Your task to perform on an android device: uninstall "Expedia: Hotels, Flights & Car" Image 0: 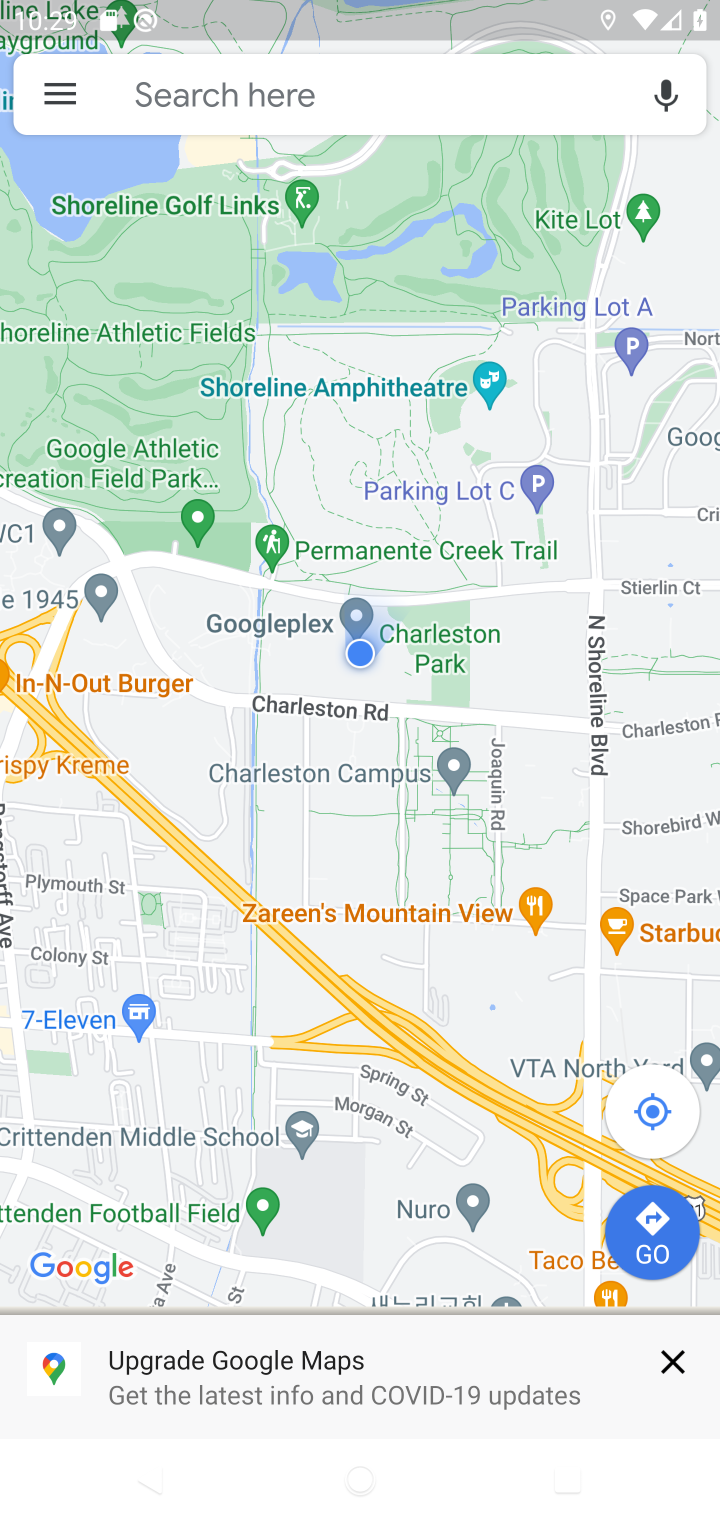
Step 0: press home button
Your task to perform on an android device: uninstall "Expedia: Hotels, Flights & Car" Image 1: 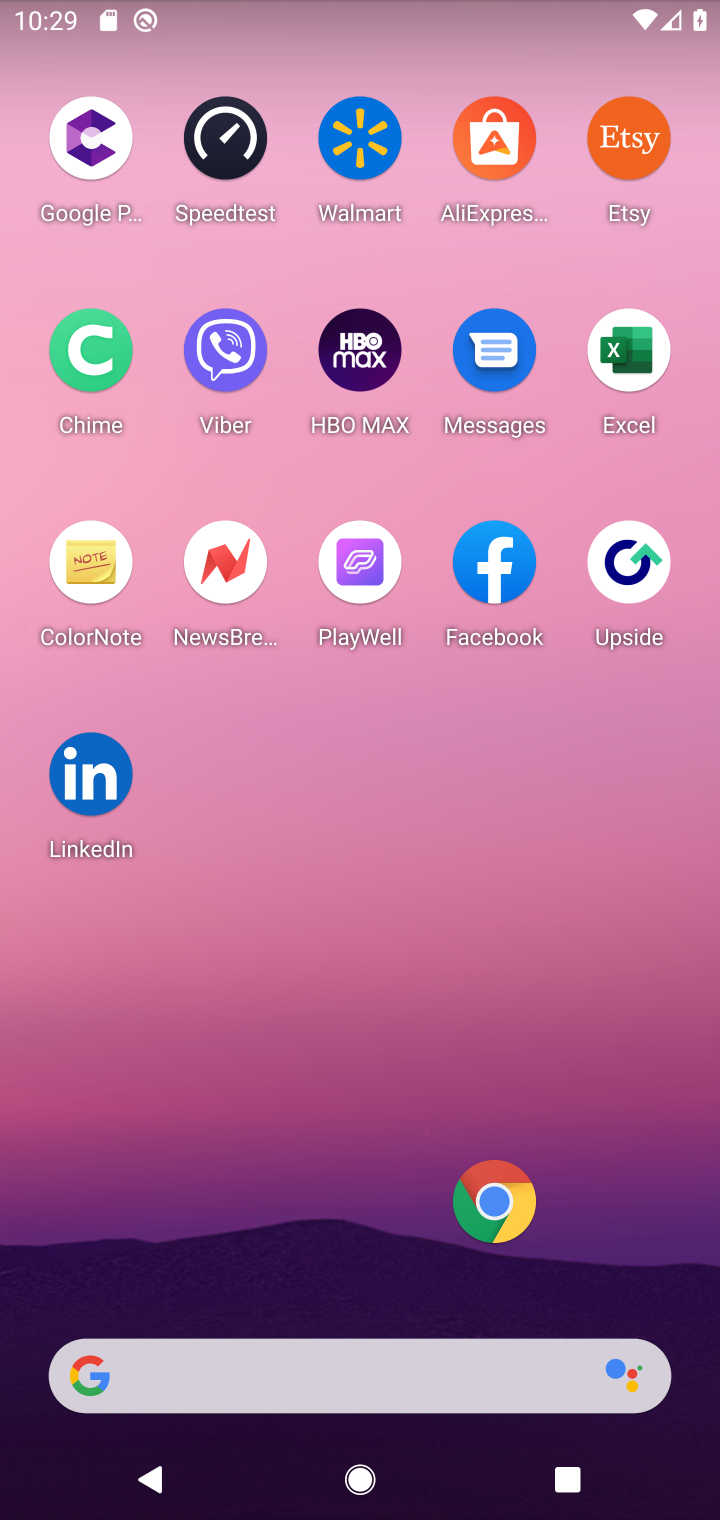
Step 1: drag from (269, 1312) to (390, 558)
Your task to perform on an android device: uninstall "Expedia: Hotels, Flights & Car" Image 2: 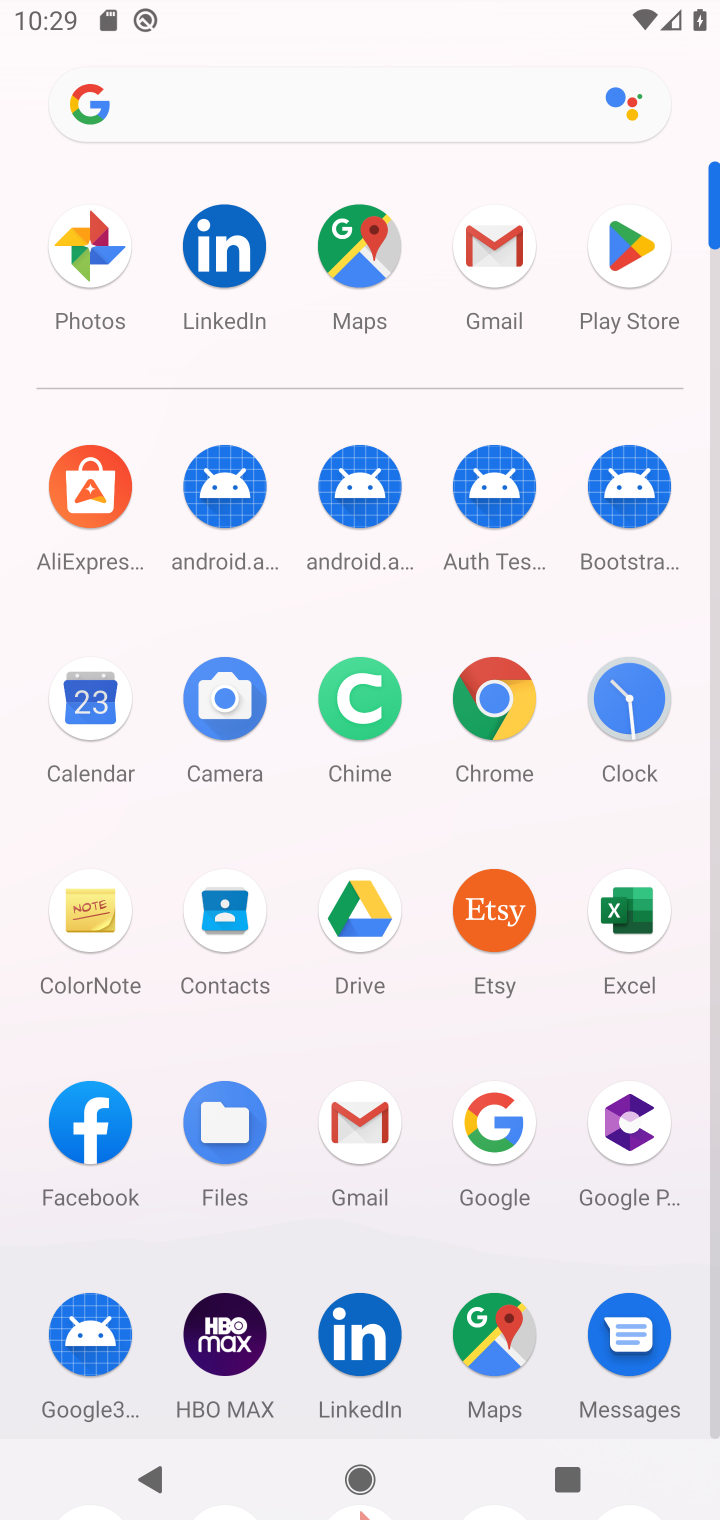
Step 2: click (605, 247)
Your task to perform on an android device: uninstall "Expedia: Hotels, Flights & Car" Image 3: 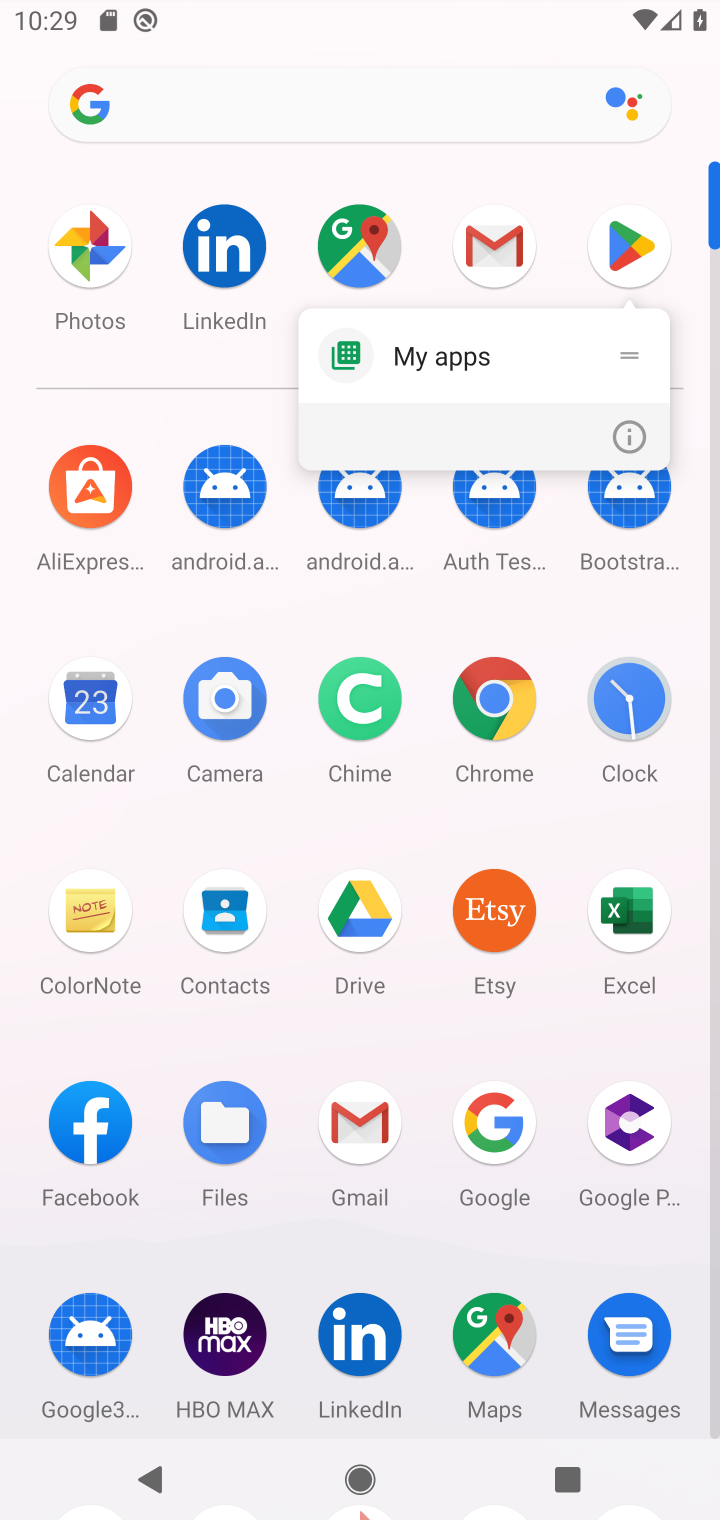
Step 3: click (637, 243)
Your task to perform on an android device: uninstall "Expedia: Hotels, Flights & Car" Image 4: 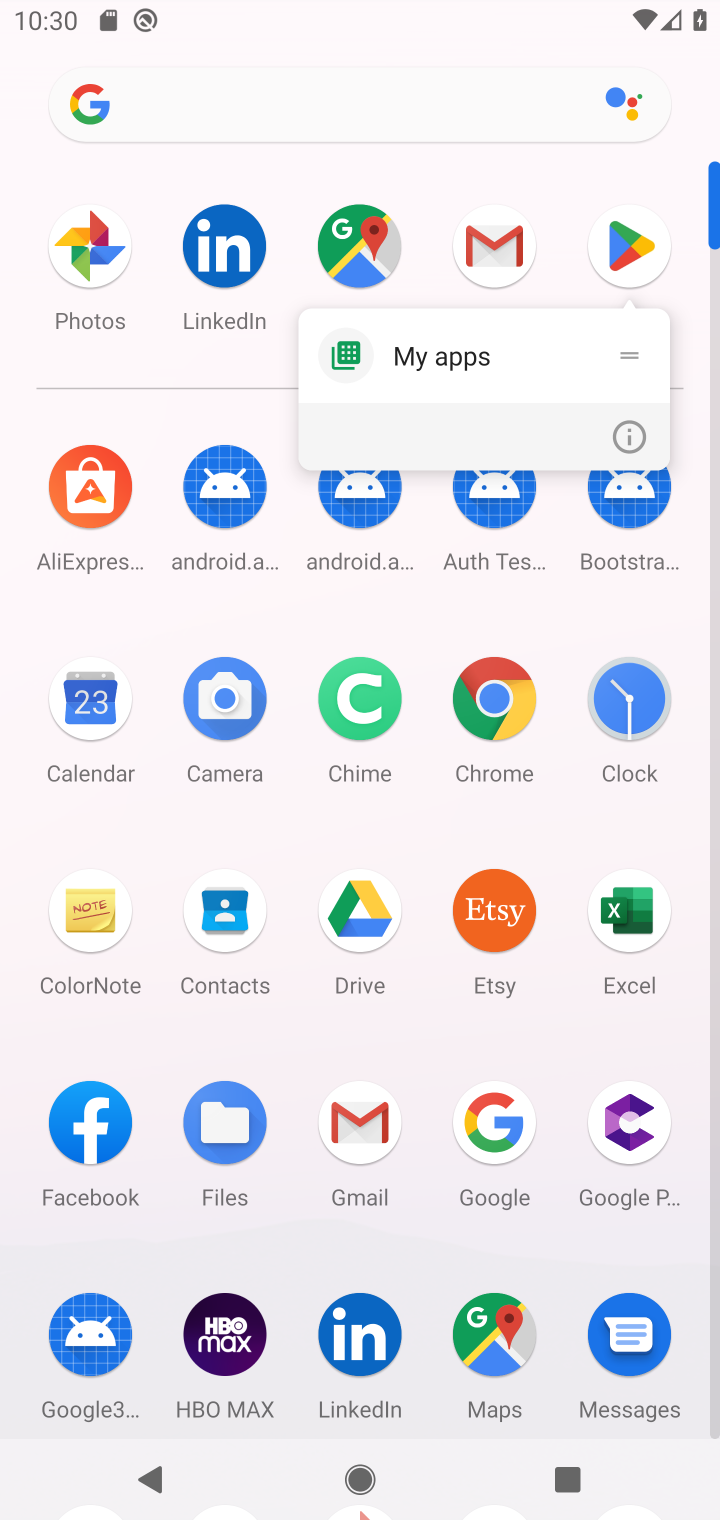
Step 4: click (617, 239)
Your task to perform on an android device: uninstall "Expedia: Hotels, Flights & Car" Image 5: 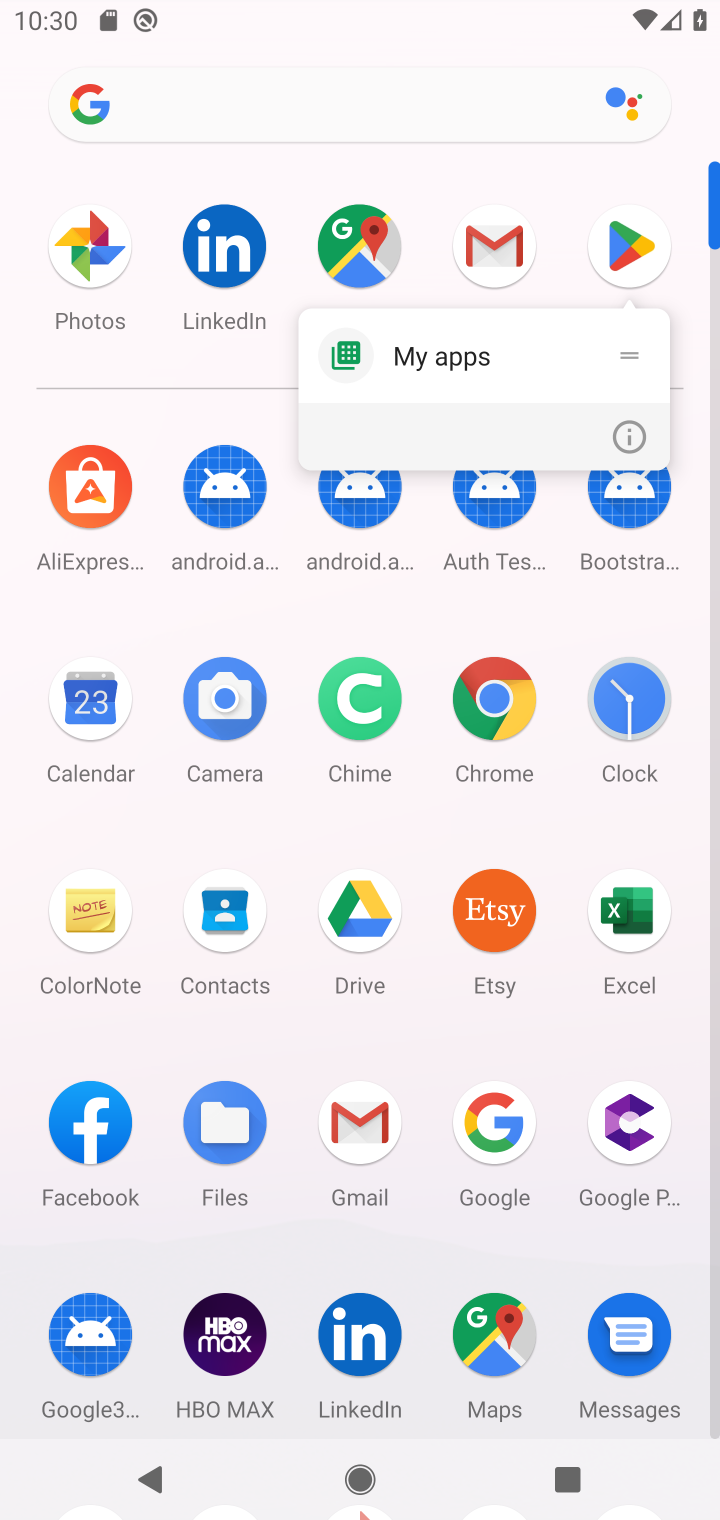
Step 5: drag from (467, 1159) to (552, 481)
Your task to perform on an android device: uninstall "Expedia: Hotels, Flights & Car" Image 6: 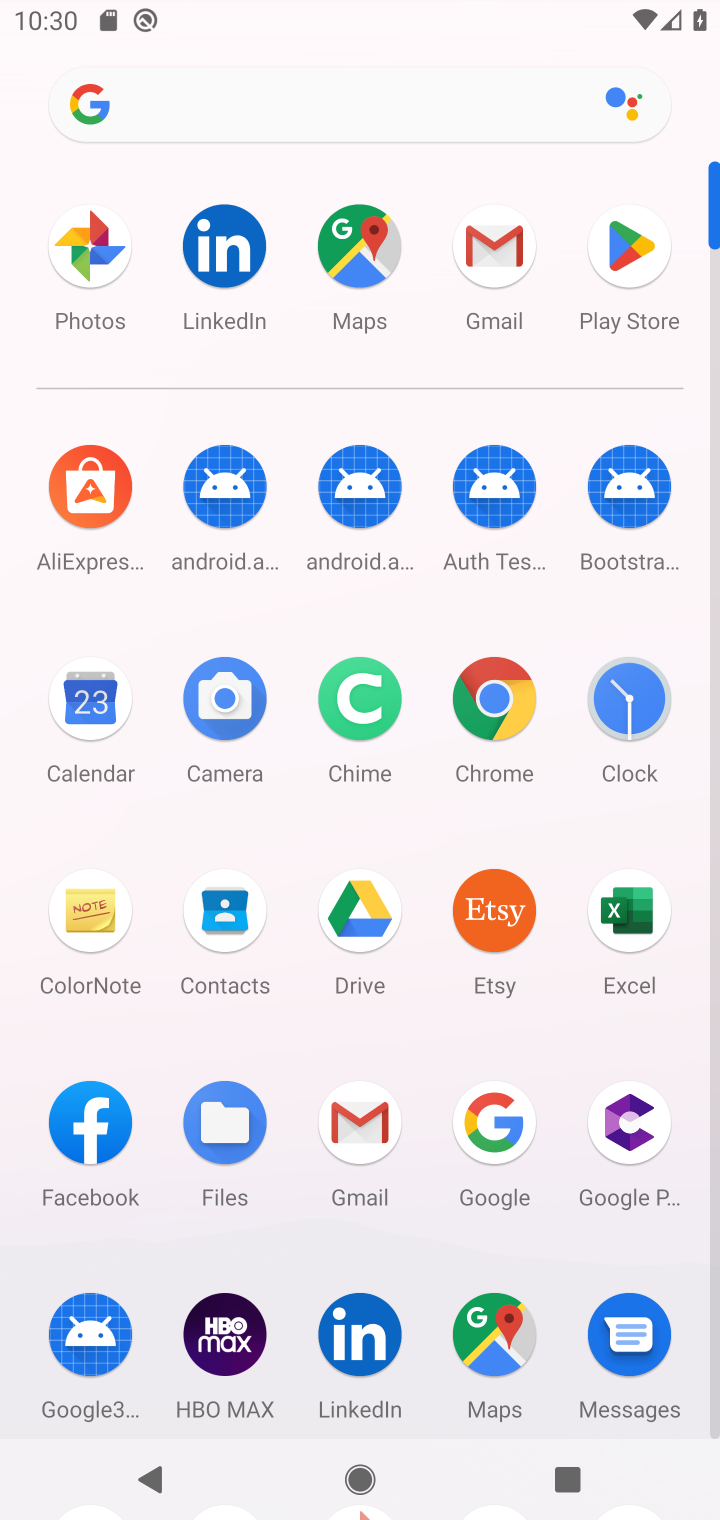
Step 6: drag from (245, 1230) to (451, 209)
Your task to perform on an android device: uninstall "Expedia: Hotels, Flights & Car" Image 7: 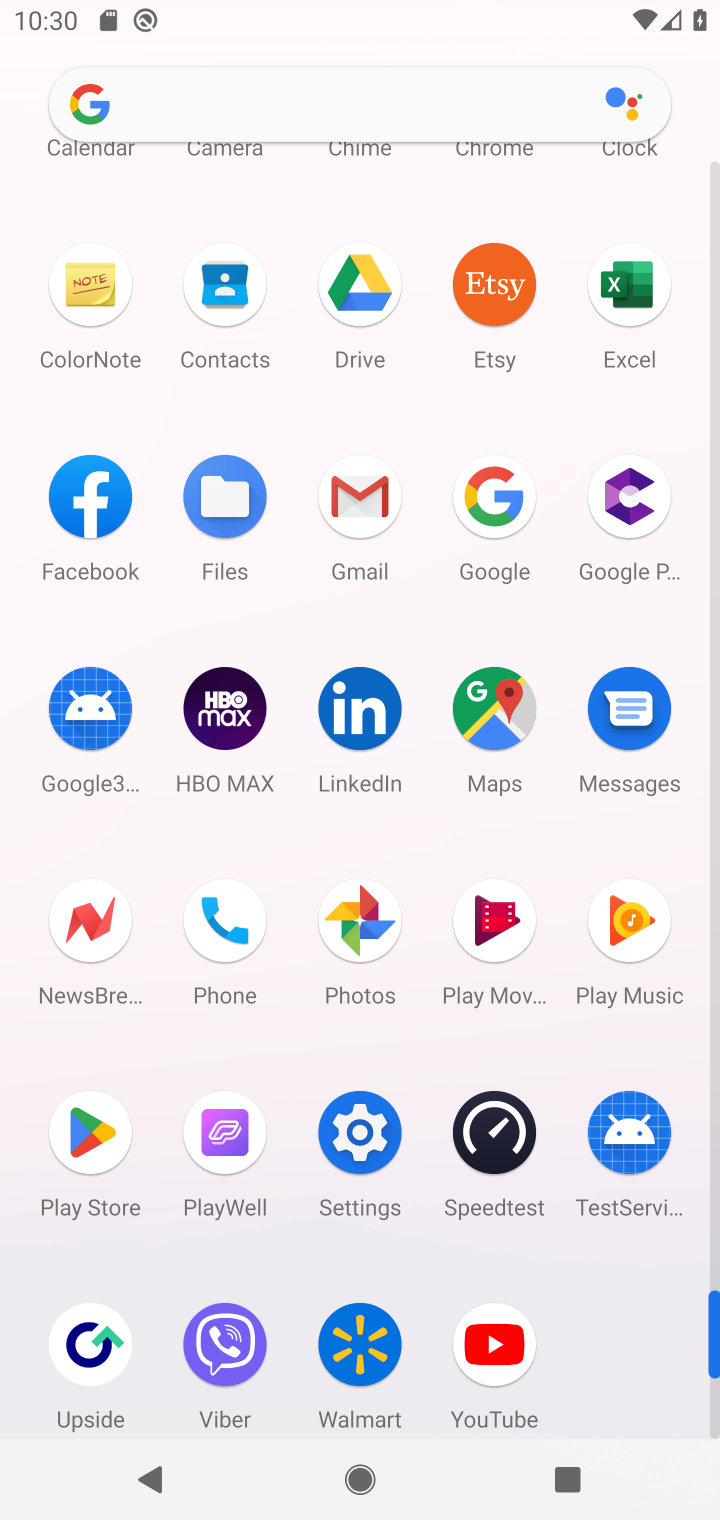
Step 7: click (76, 1138)
Your task to perform on an android device: uninstall "Expedia: Hotels, Flights & Car" Image 8: 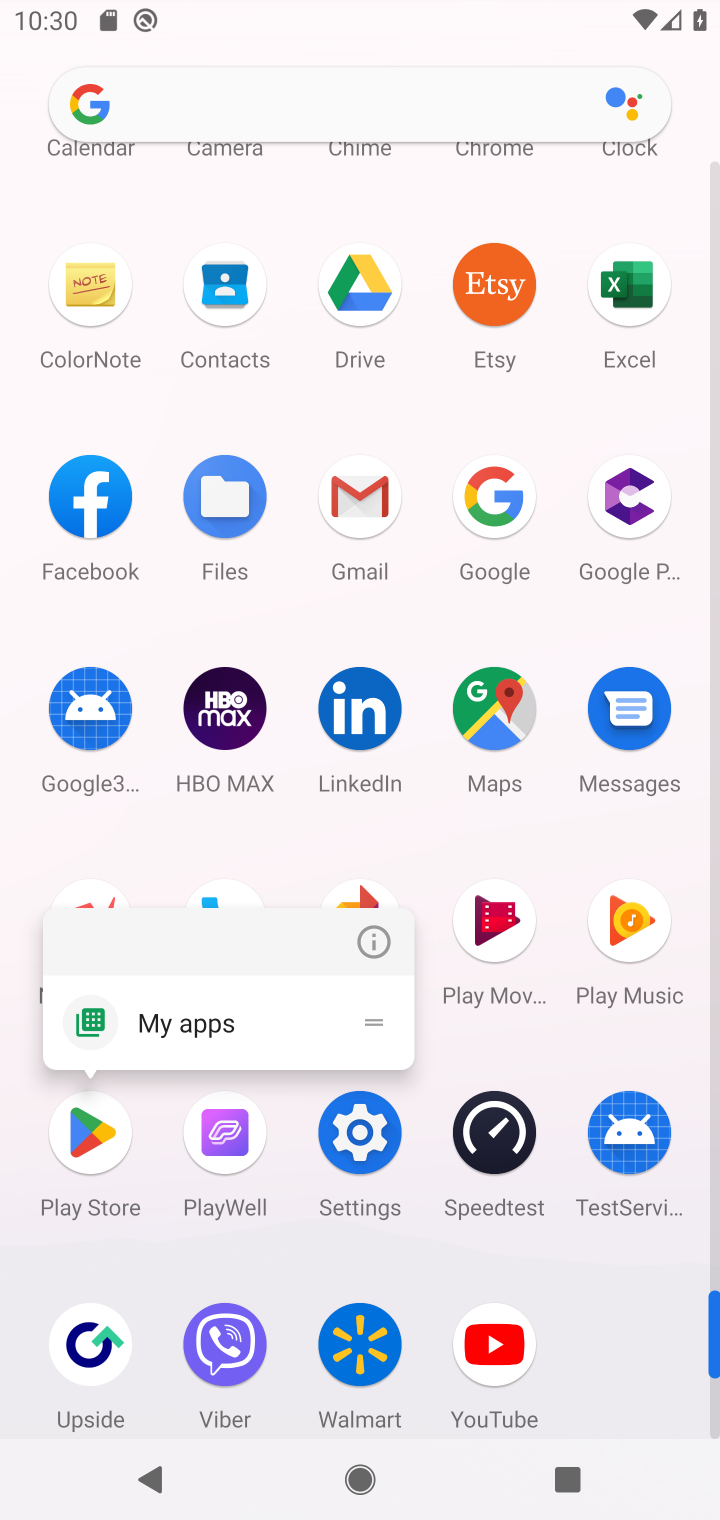
Step 8: click (68, 1128)
Your task to perform on an android device: uninstall "Expedia: Hotels, Flights & Car" Image 9: 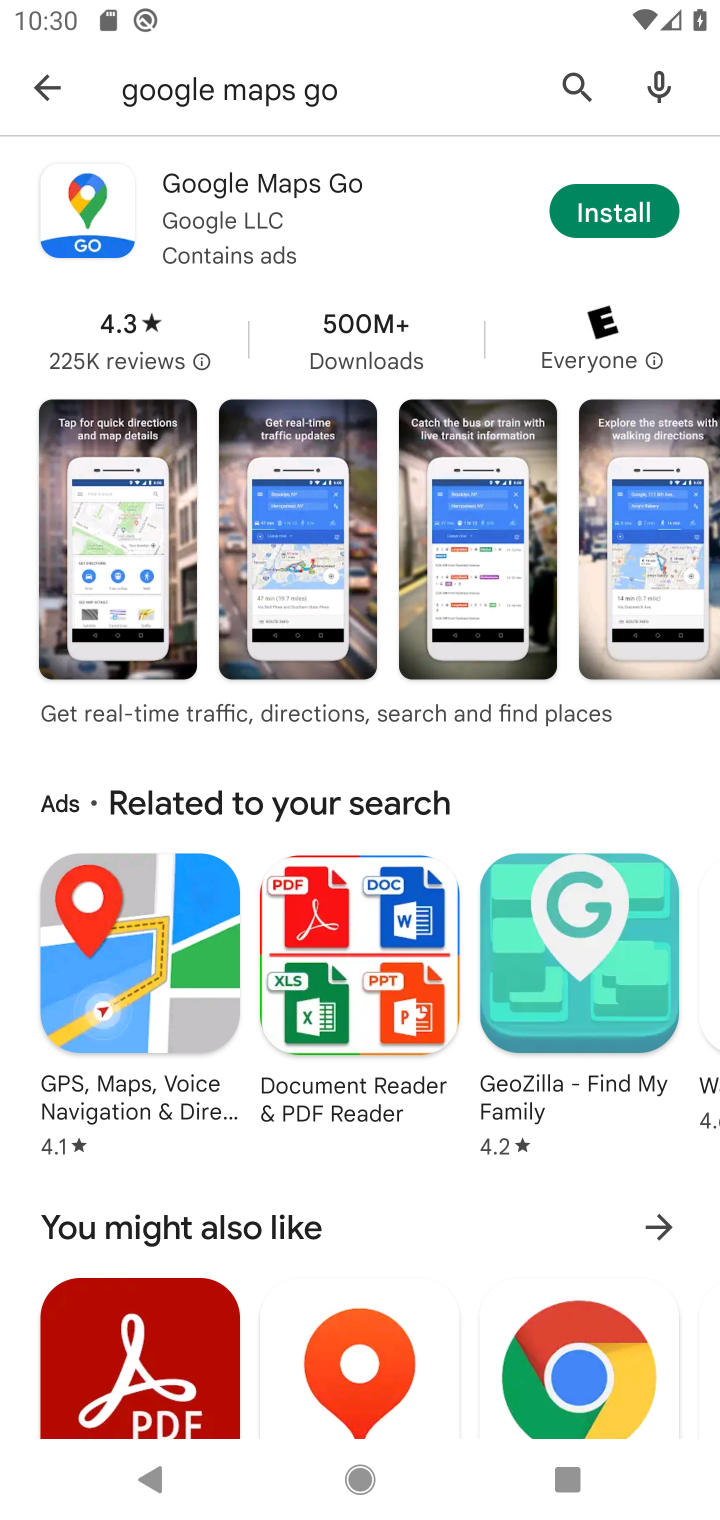
Step 9: click (11, 86)
Your task to perform on an android device: uninstall "Expedia: Hotels, Flights & Car" Image 10: 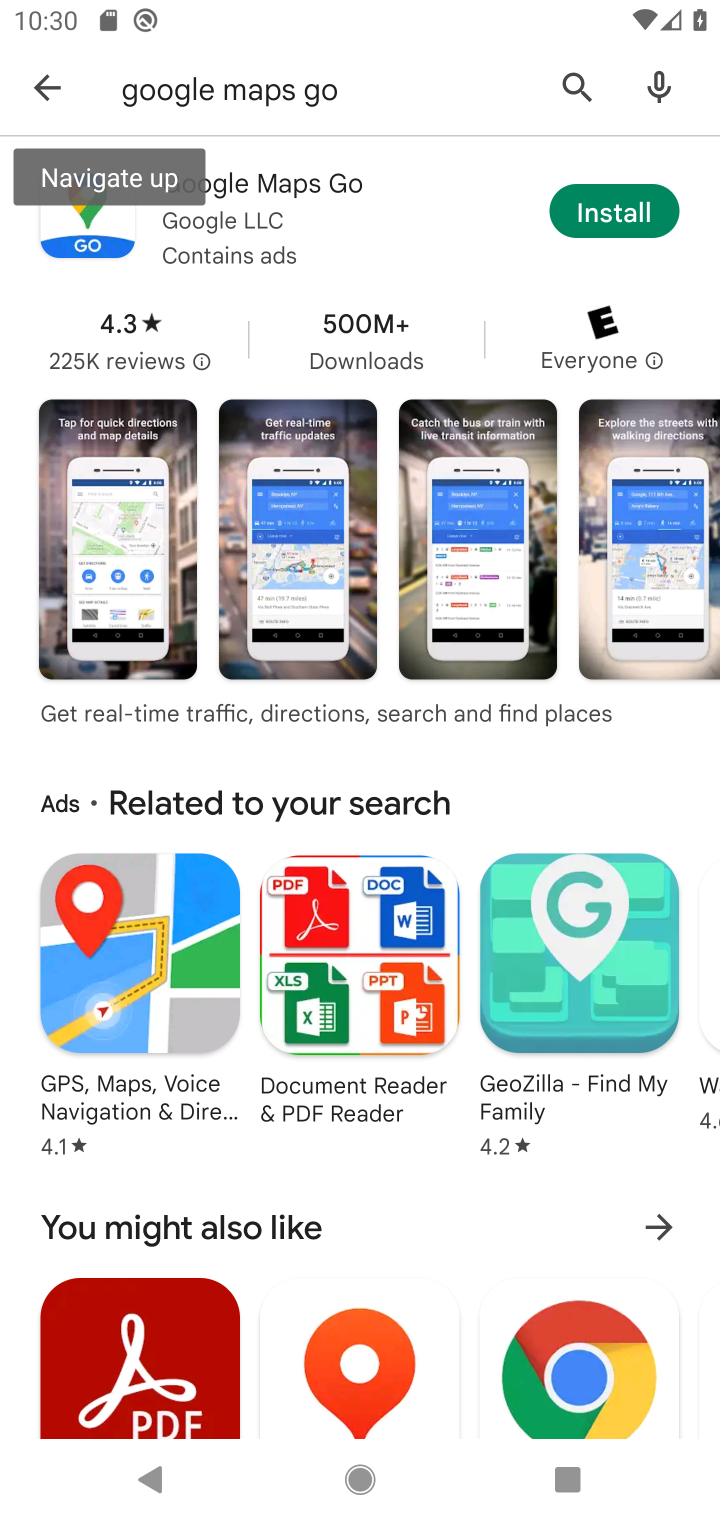
Step 10: click (31, 90)
Your task to perform on an android device: uninstall "Expedia: Hotels, Flights & Car" Image 11: 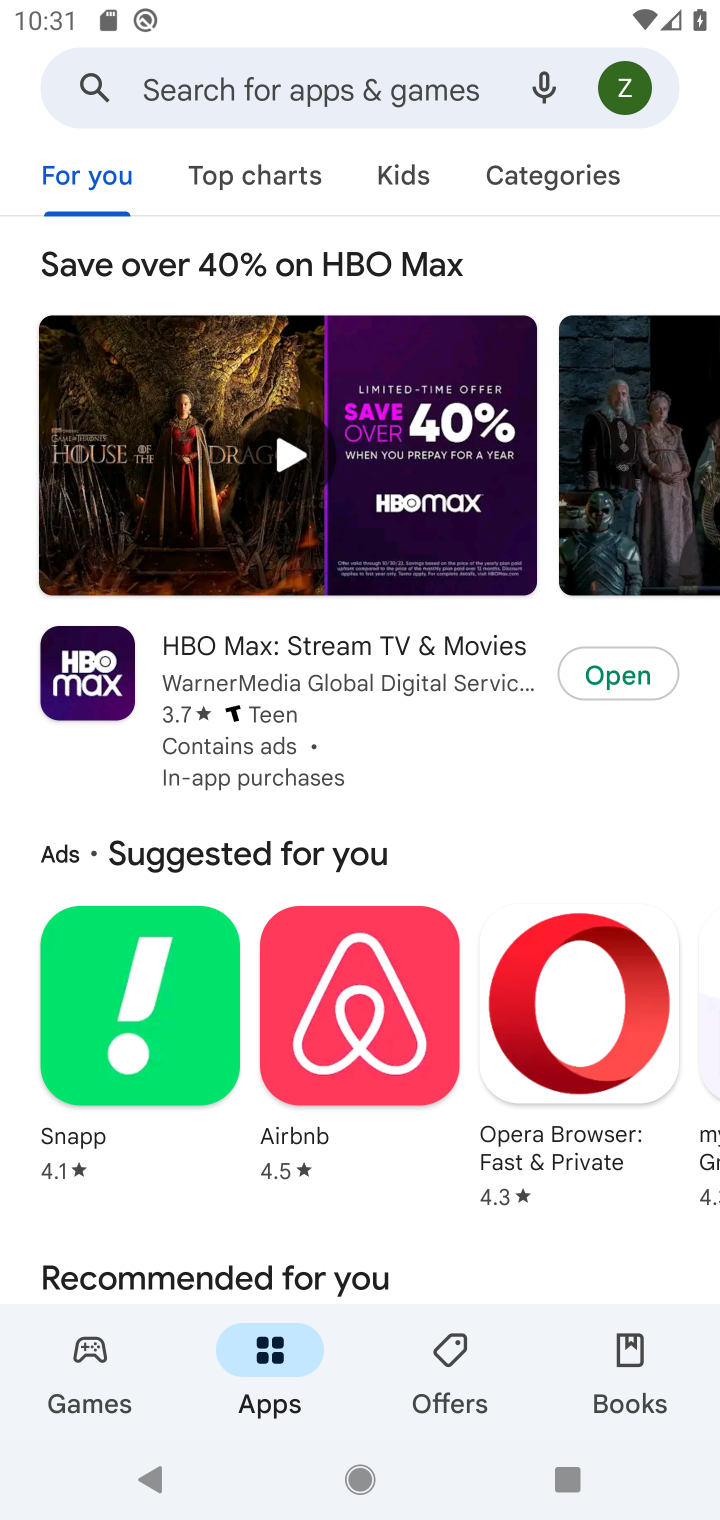
Step 11: click (231, 59)
Your task to perform on an android device: uninstall "Expedia: Hotels, Flights & Car" Image 12: 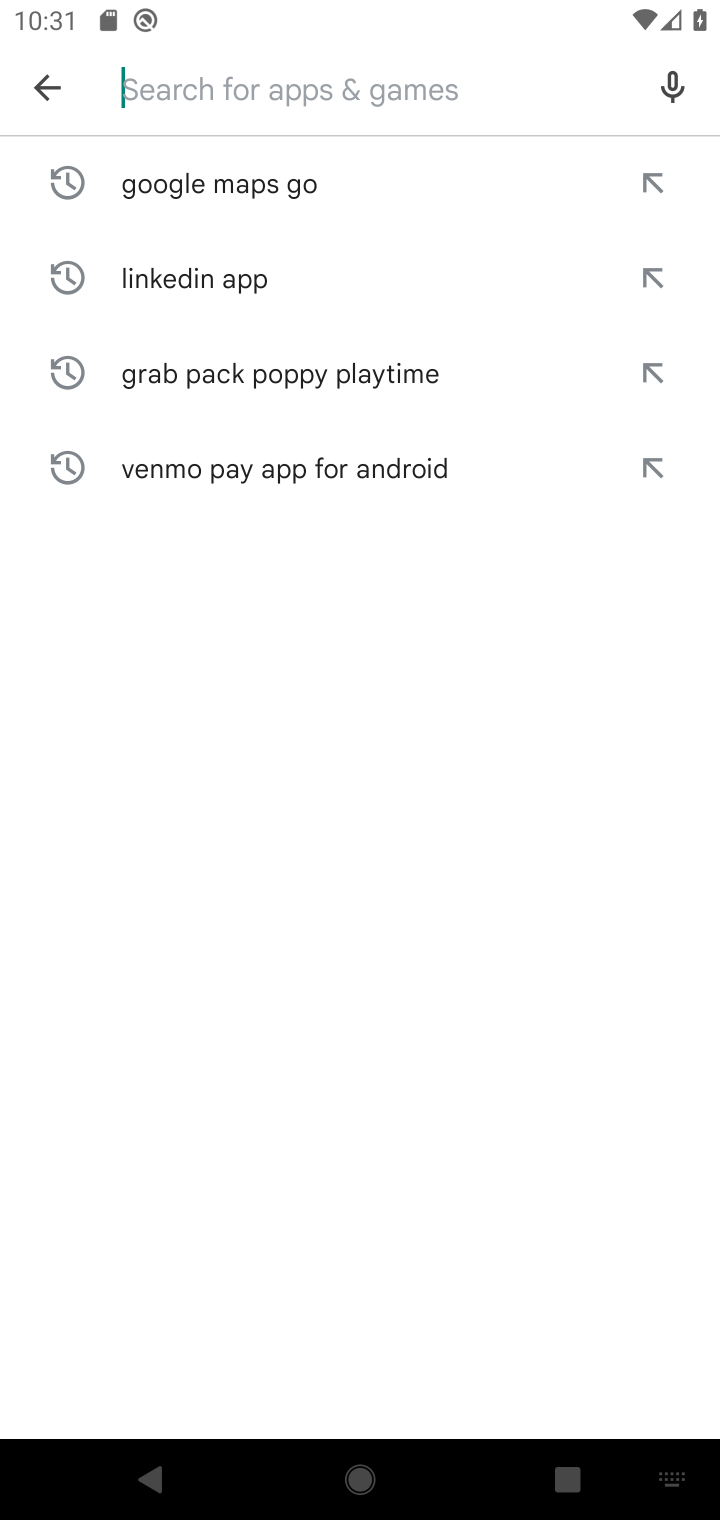
Step 12: type "Expedia: Hotels, Flights & Car "
Your task to perform on an android device: uninstall "Expedia: Hotels, Flights & Car" Image 13: 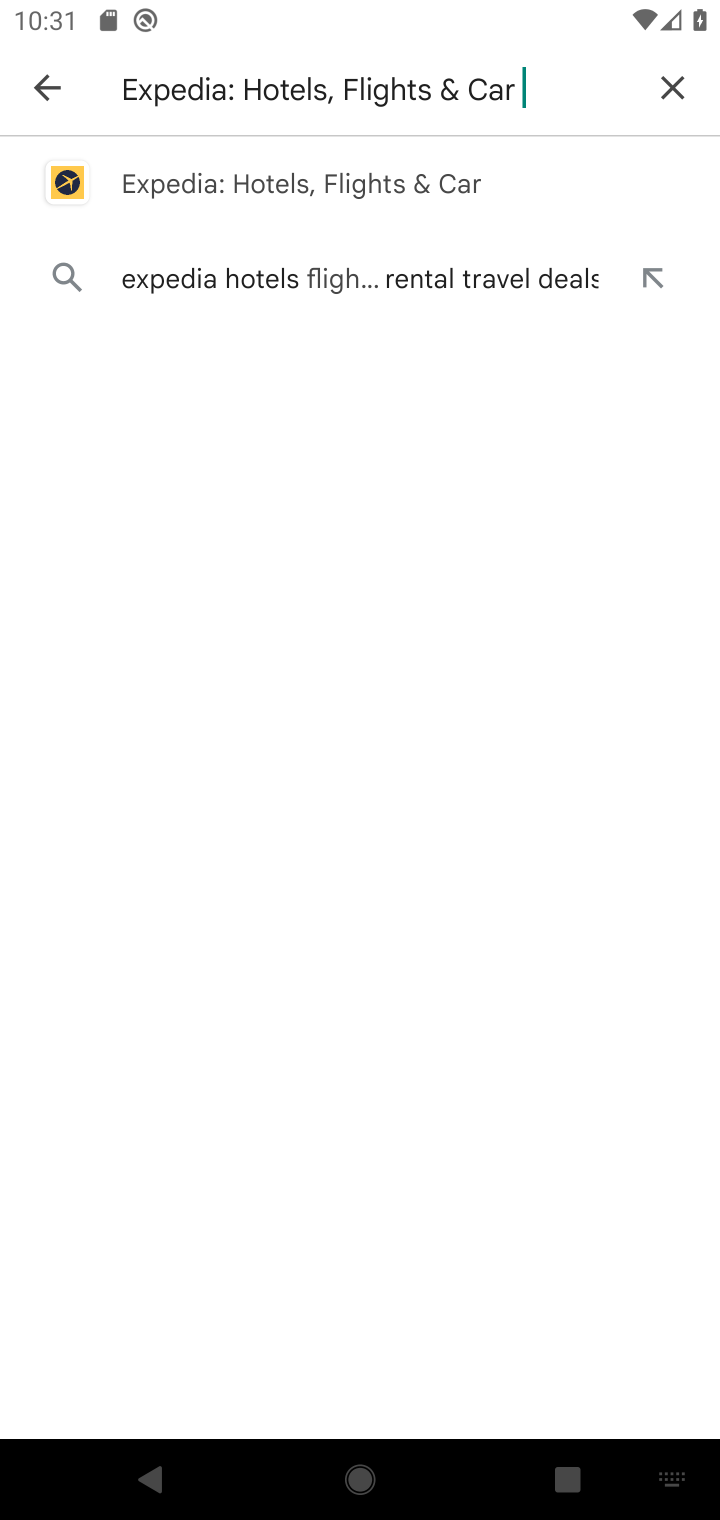
Step 13: click (270, 186)
Your task to perform on an android device: uninstall "Expedia: Hotels, Flights & Car" Image 14: 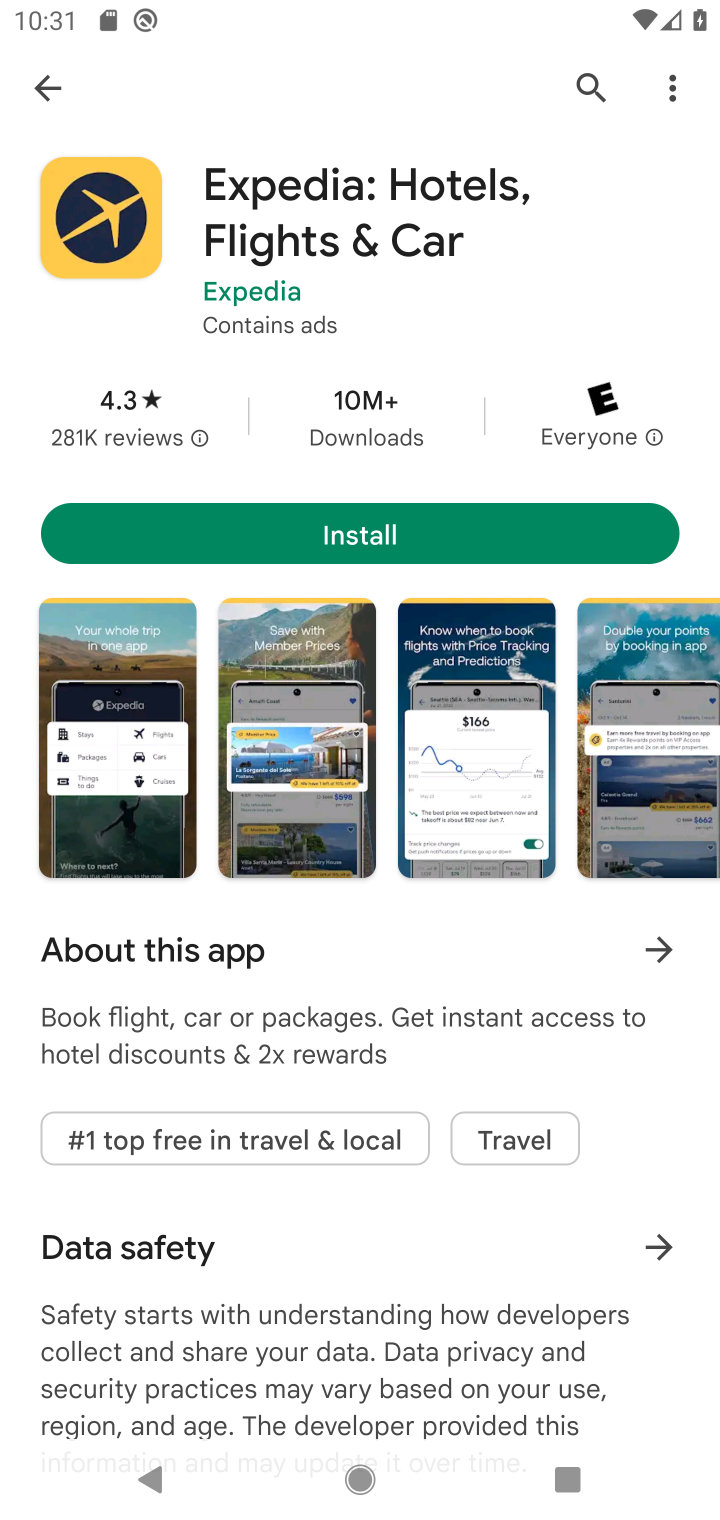
Step 14: click (375, 511)
Your task to perform on an android device: uninstall "Expedia: Hotels, Flights & Car" Image 15: 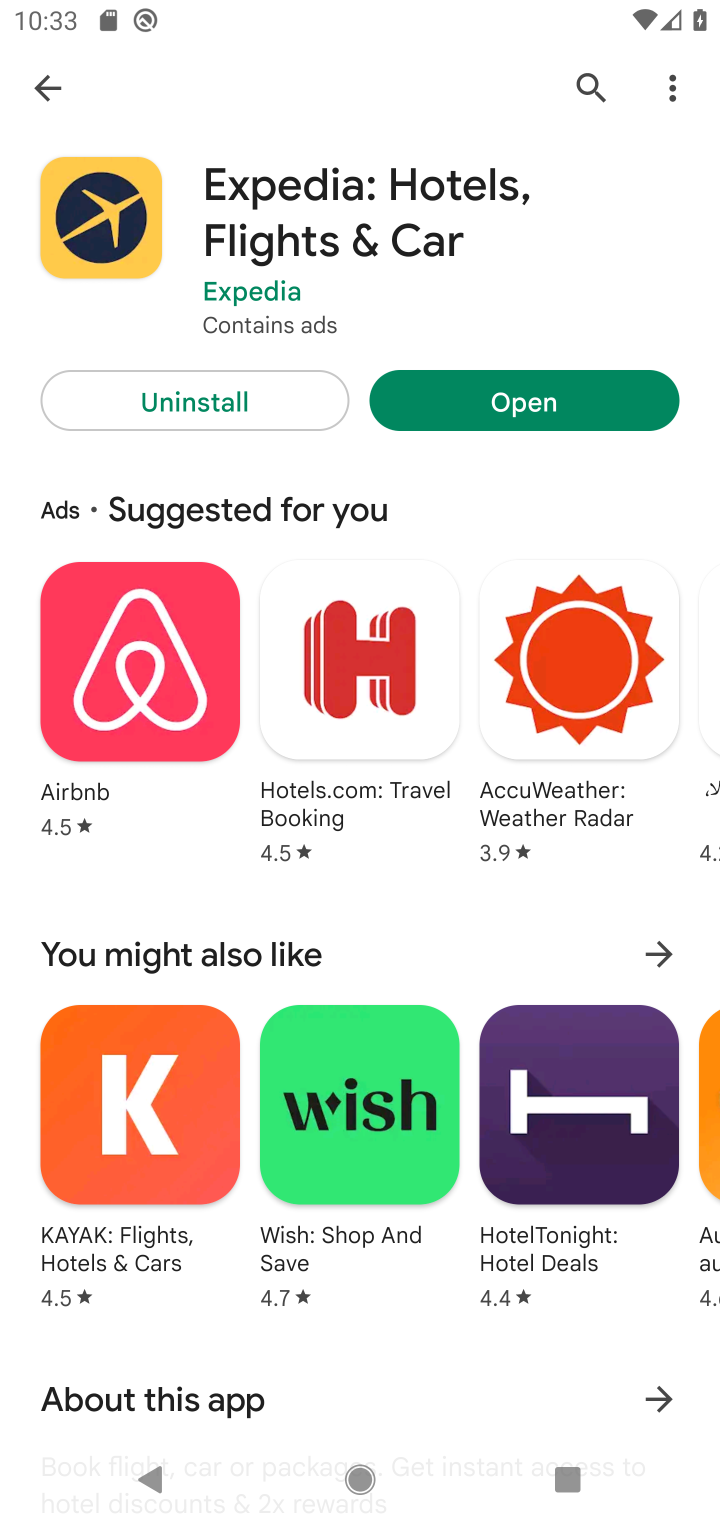
Step 15: click (174, 396)
Your task to perform on an android device: uninstall "Expedia: Hotels, Flights & Car" Image 16: 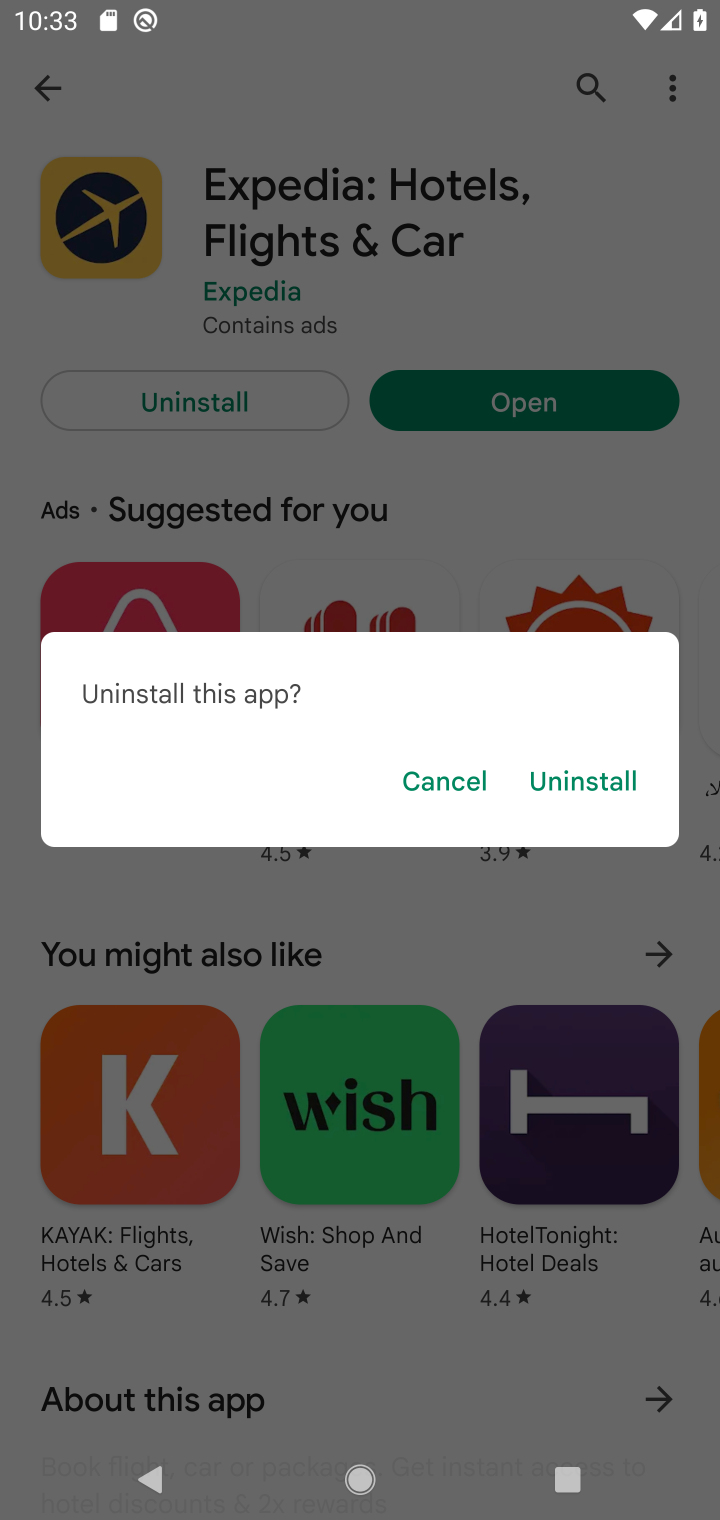
Step 16: click (577, 808)
Your task to perform on an android device: uninstall "Expedia: Hotels, Flights & Car" Image 17: 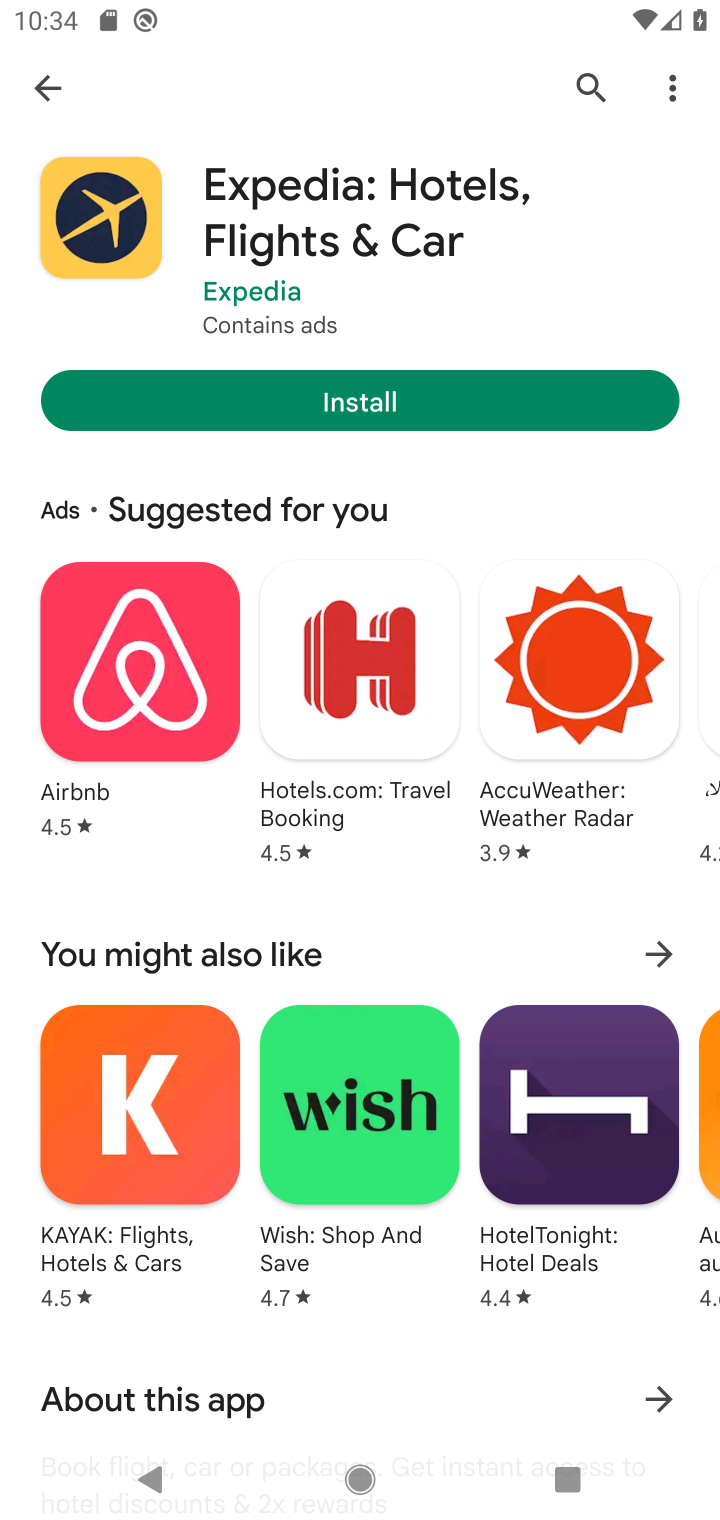
Step 17: task complete